Your task to perform on an android device: choose inbox layout in the gmail app Image 0: 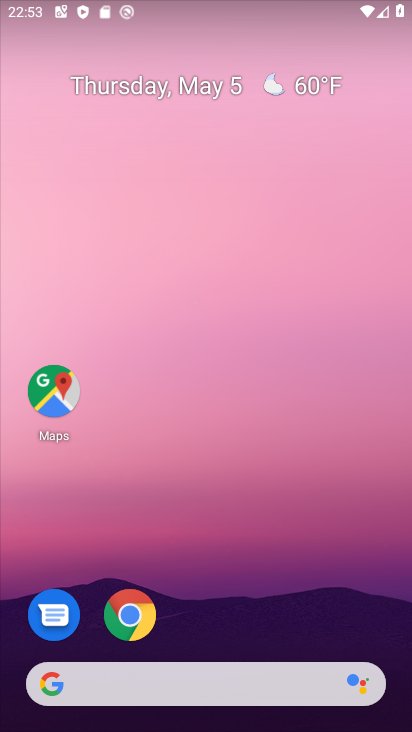
Step 0: drag from (269, 515) to (265, 125)
Your task to perform on an android device: choose inbox layout in the gmail app Image 1: 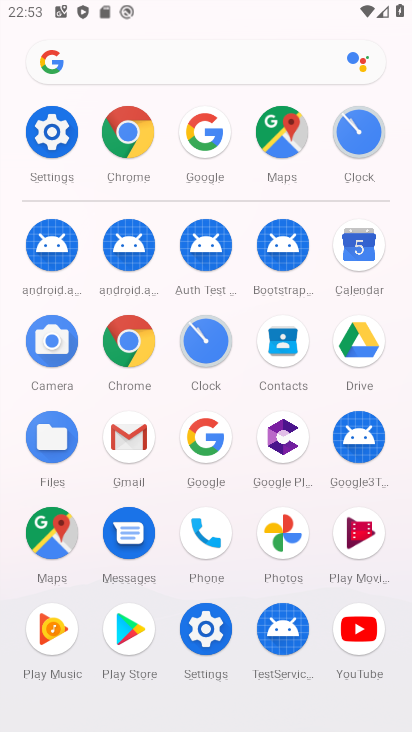
Step 1: click (129, 439)
Your task to perform on an android device: choose inbox layout in the gmail app Image 2: 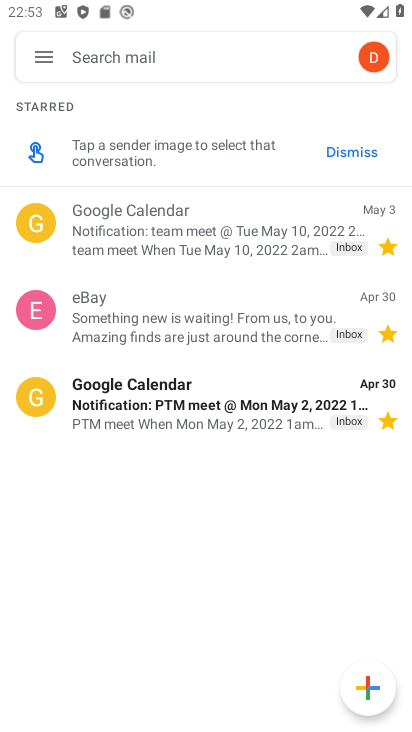
Step 2: click (49, 58)
Your task to perform on an android device: choose inbox layout in the gmail app Image 3: 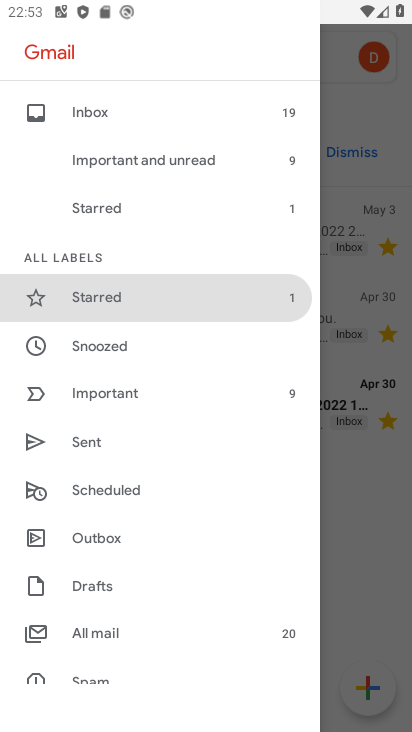
Step 3: drag from (121, 674) to (153, 189)
Your task to perform on an android device: choose inbox layout in the gmail app Image 4: 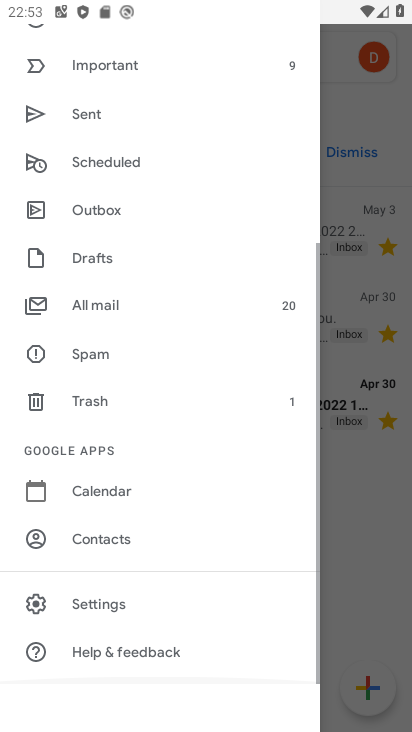
Step 4: click (81, 605)
Your task to perform on an android device: choose inbox layout in the gmail app Image 5: 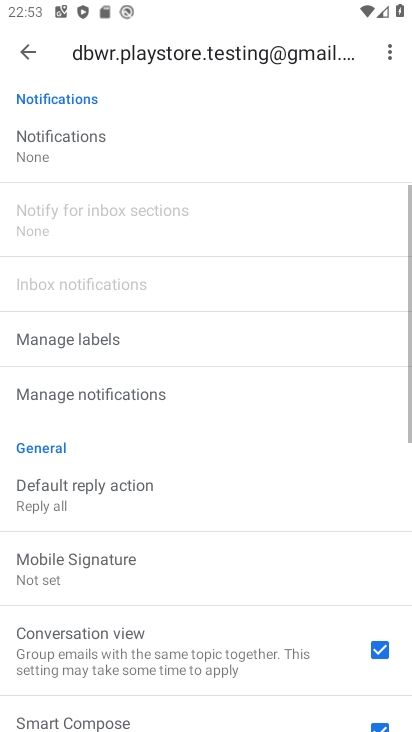
Step 5: drag from (192, 585) to (222, 635)
Your task to perform on an android device: choose inbox layout in the gmail app Image 6: 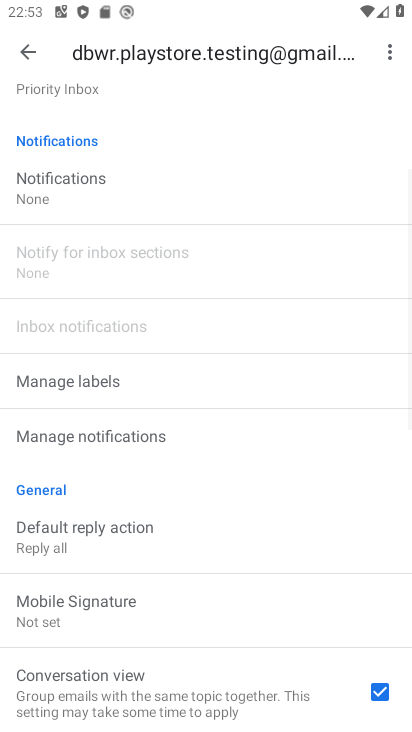
Step 6: drag from (152, 146) to (198, 328)
Your task to perform on an android device: choose inbox layout in the gmail app Image 7: 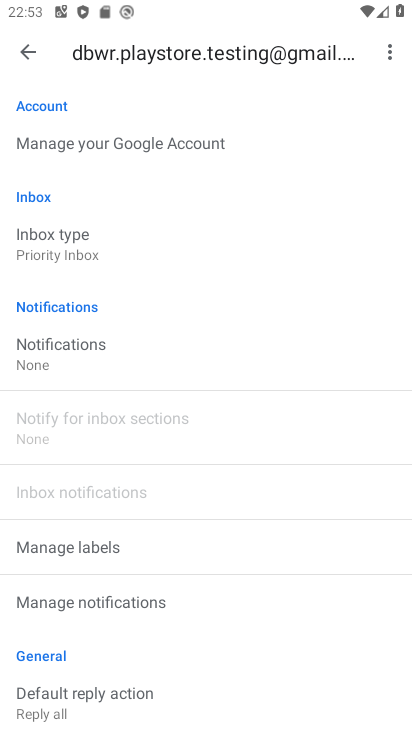
Step 7: click (87, 248)
Your task to perform on an android device: choose inbox layout in the gmail app Image 8: 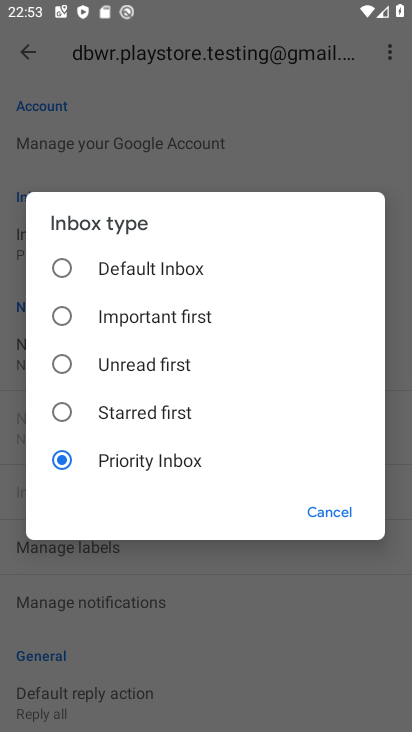
Step 8: click (71, 266)
Your task to perform on an android device: choose inbox layout in the gmail app Image 9: 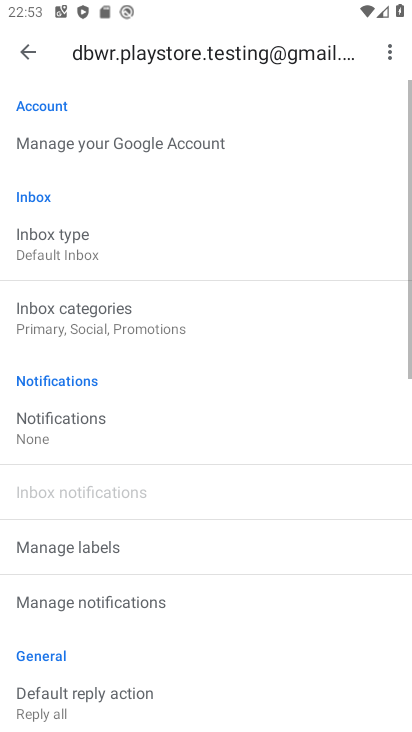
Step 9: task complete